Your task to perform on an android device: show emergency info Image 0: 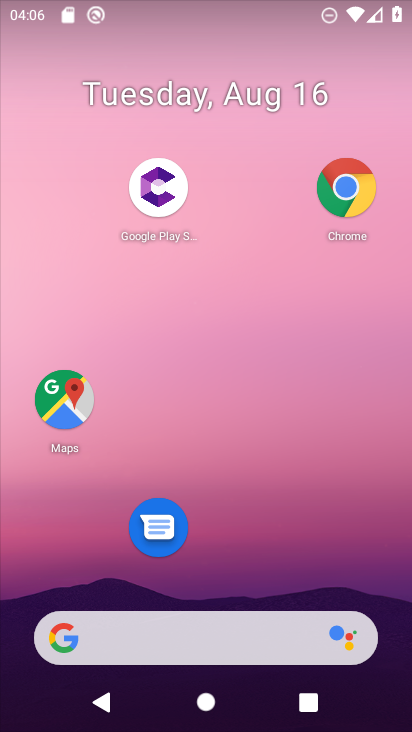
Step 0: press home button
Your task to perform on an android device: show emergency info Image 1: 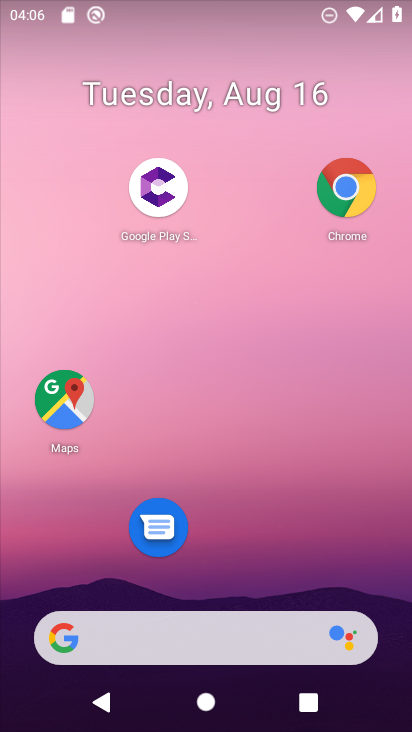
Step 1: drag from (233, 536) to (265, 69)
Your task to perform on an android device: show emergency info Image 2: 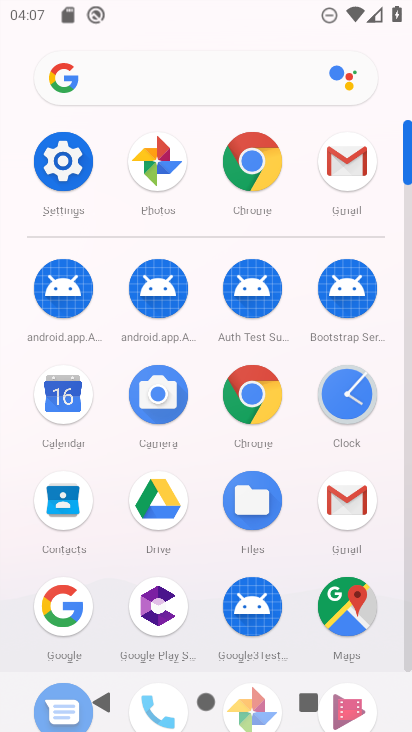
Step 2: click (61, 155)
Your task to perform on an android device: show emergency info Image 3: 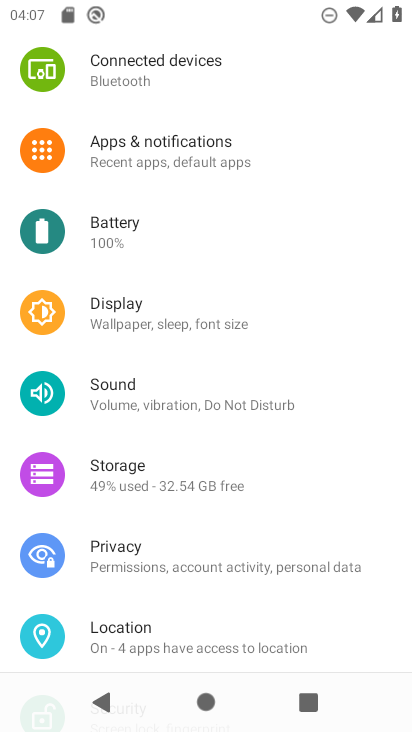
Step 3: drag from (184, 632) to (183, 225)
Your task to perform on an android device: show emergency info Image 4: 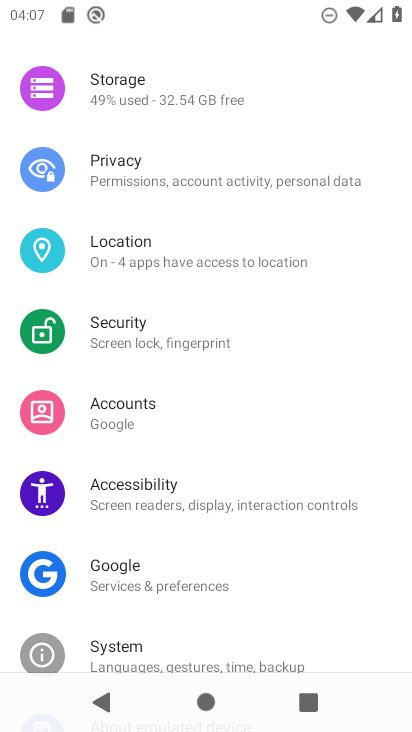
Step 4: drag from (164, 643) to (202, 314)
Your task to perform on an android device: show emergency info Image 5: 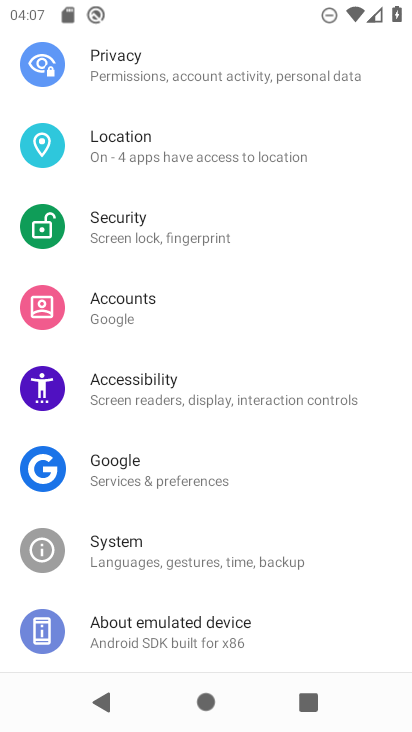
Step 5: click (208, 645)
Your task to perform on an android device: show emergency info Image 6: 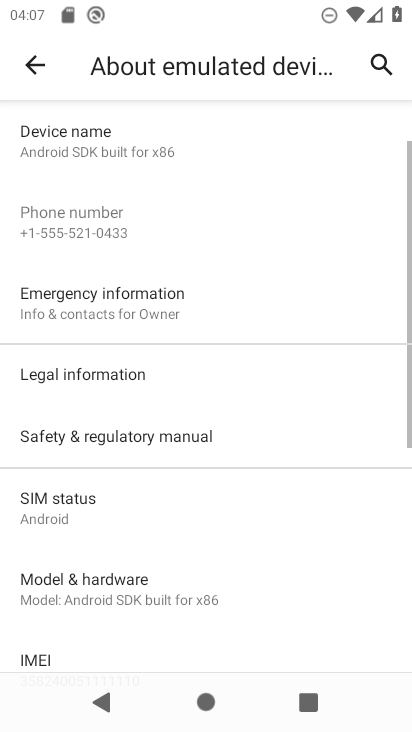
Step 6: click (206, 300)
Your task to perform on an android device: show emergency info Image 7: 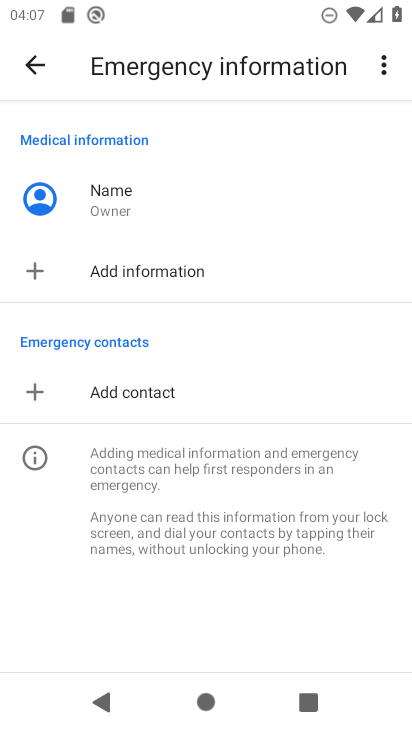
Step 7: task complete